Your task to perform on an android device: turn on airplane mode Image 0: 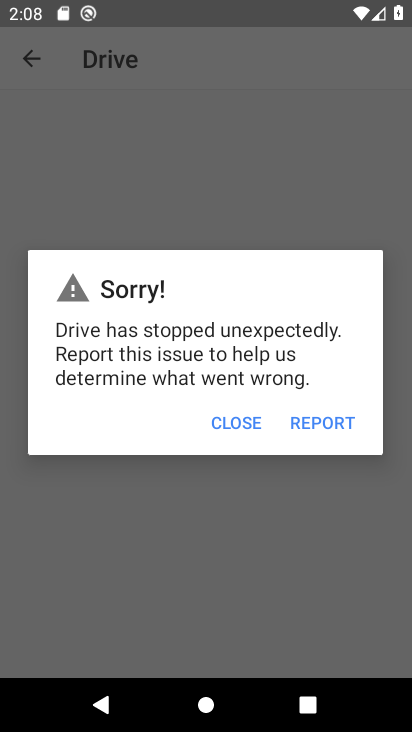
Step 0: press home button
Your task to perform on an android device: turn on airplane mode Image 1: 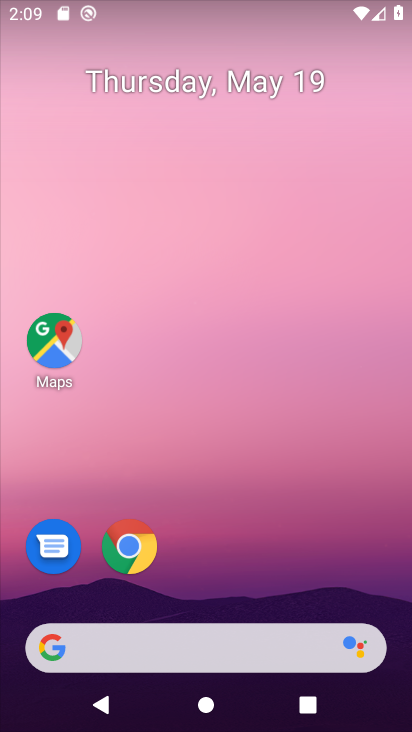
Step 1: drag from (250, 7) to (278, 618)
Your task to perform on an android device: turn on airplane mode Image 2: 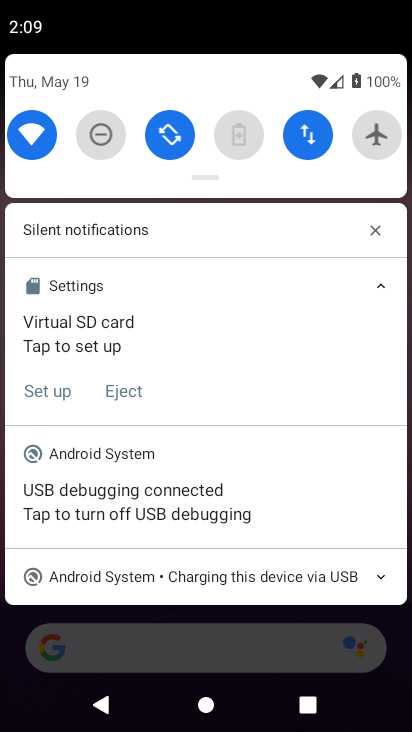
Step 2: click (375, 133)
Your task to perform on an android device: turn on airplane mode Image 3: 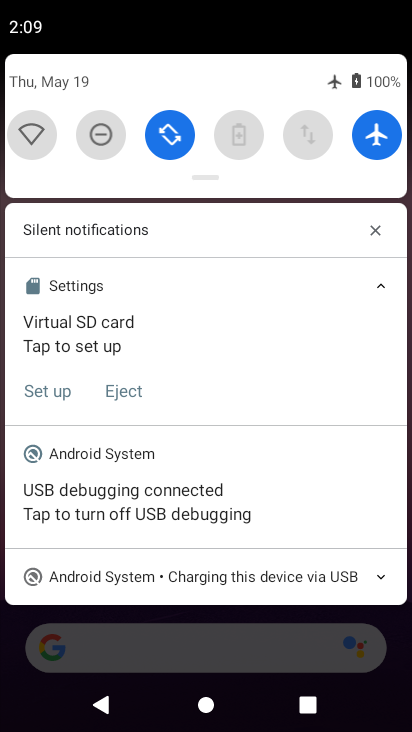
Step 3: task complete